Your task to perform on an android device: turn off sleep mode Image 0: 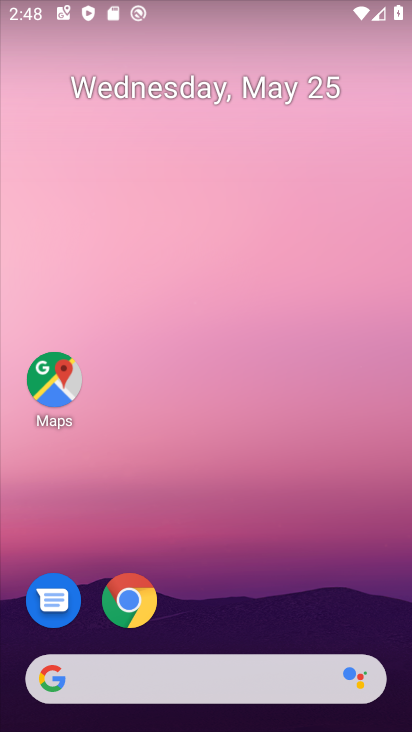
Step 0: press home button
Your task to perform on an android device: turn off sleep mode Image 1: 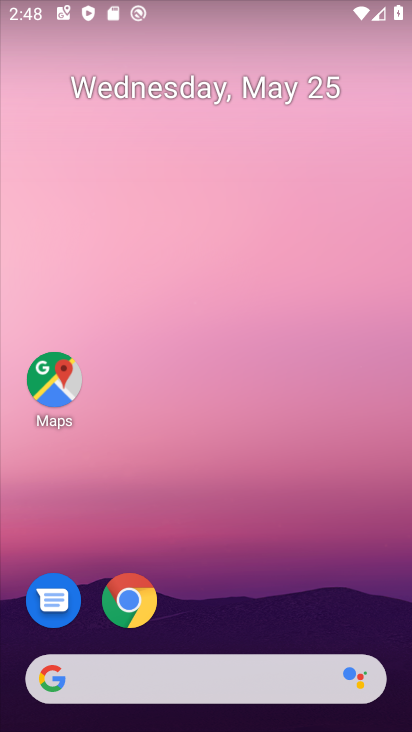
Step 1: drag from (55, 537) to (271, 215)
Your task to perform on an android device: turn off sleep mode Image 2: 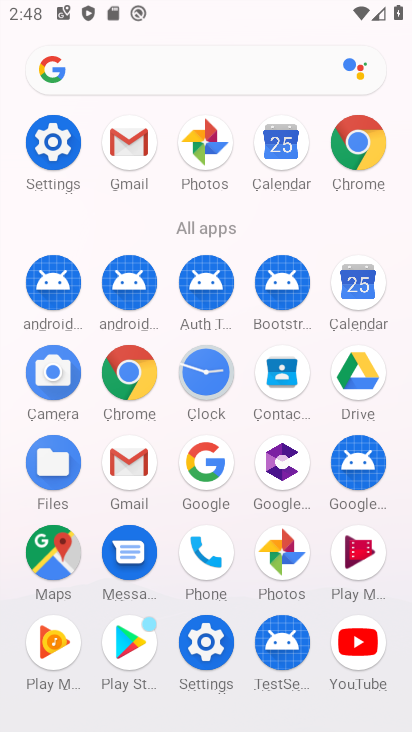
Step 2: click (48, 131)
Your task to perform on an android device: turn off sleep mode Image 3: 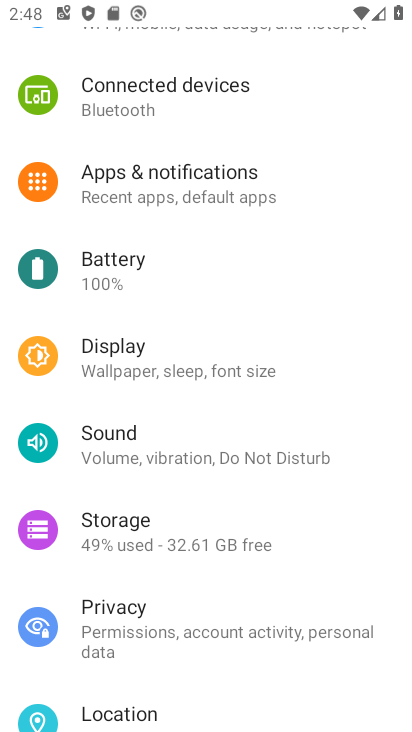
Step 3: click (173, 367)
Your task to perform on an android device: turn off sleep mode Image 4: 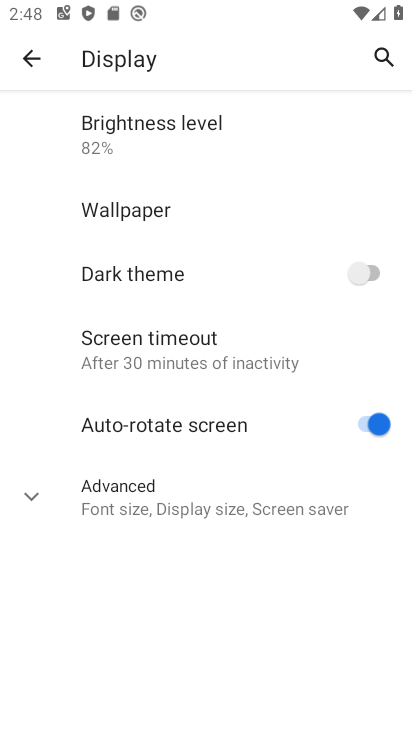
Step 4: task complete